Your task to perform on an android device: Open Chrome and go to settings Image 0: 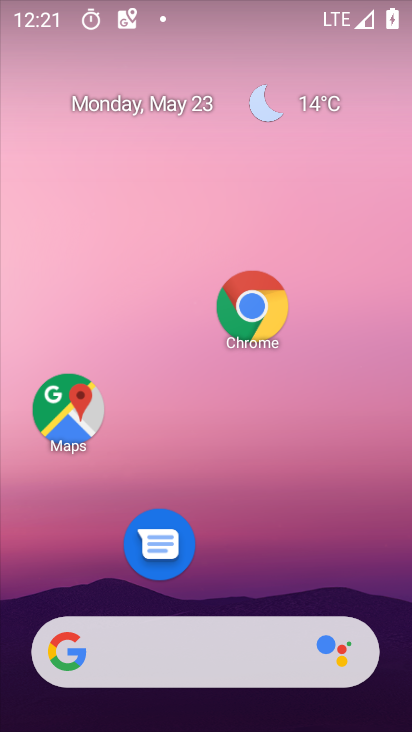
Step 0: drag from (274, 561) to (262, 121)
Your task to perform on an android device: Open Chrome and go to settings Image 1: 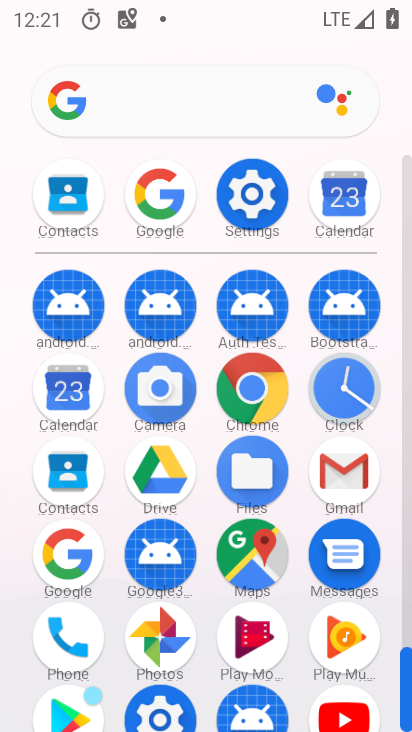
Step 1: click (258, 411)
Your task to perform on an android device: Open Chrome and go to settings Image 2: 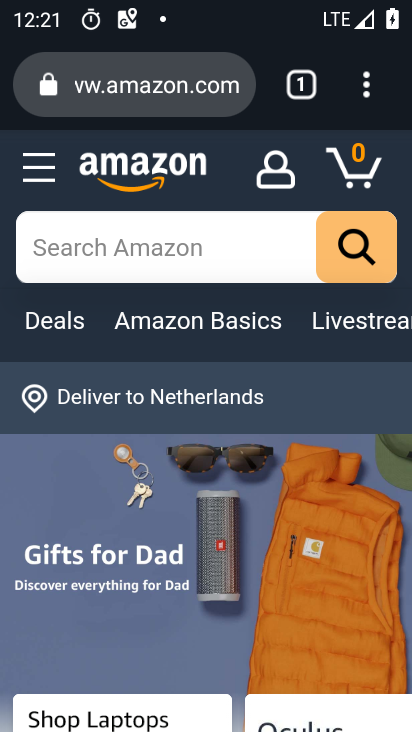
Step 2: click (367, 93)
Your task to perform on an android device: Open Chrome and go to settings Image 3: 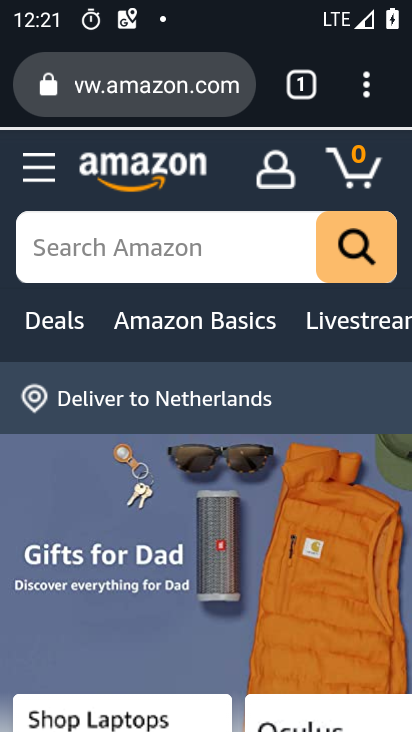
Step 3: click (369, 88)
Your task to perform on an android device: Open Chrome and go to settings Image 4: 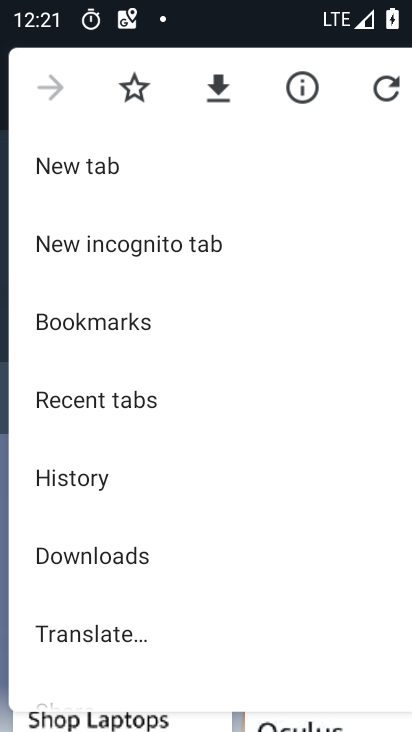
Step 4: drag from (162, 626) to (130, 304)
Your task to perform on an android device: Open Chrome and go to settings Image 5: 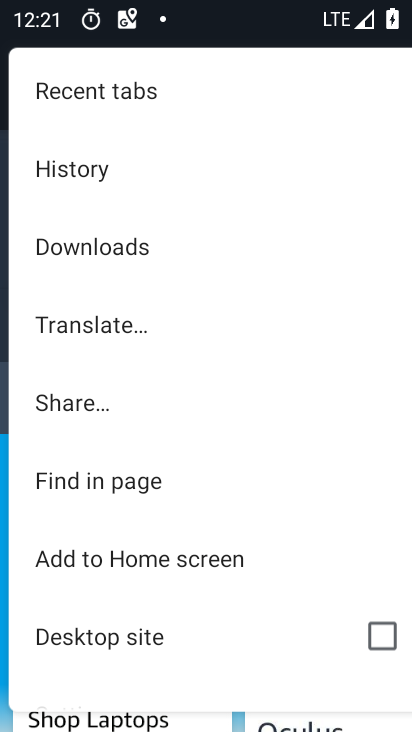
Step 5: drag from (122, 628) to (121, 360)
Your task to perform on an android device: Open Chrome and go to settings Image 6: 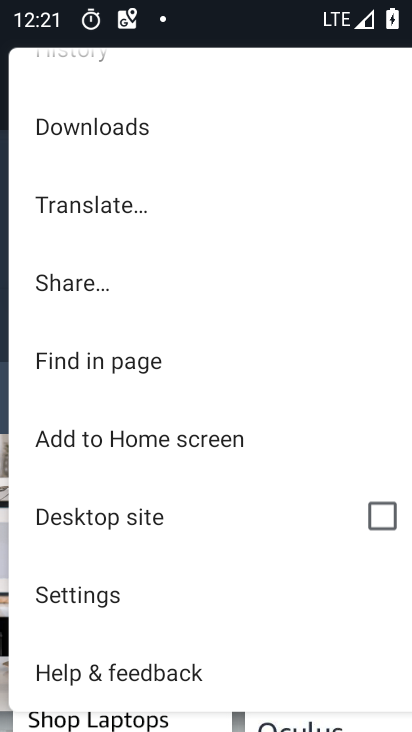
Step 6: click (83, 595)
Your task to perform on an android device: Open Chrome and go to settings Image 7: 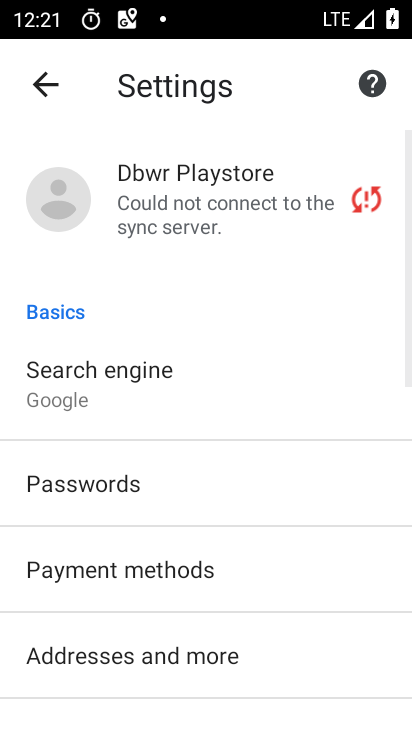
Step 7: task complete